Your task to perform on an android device: turn off data saver in the chrome app Image 0: 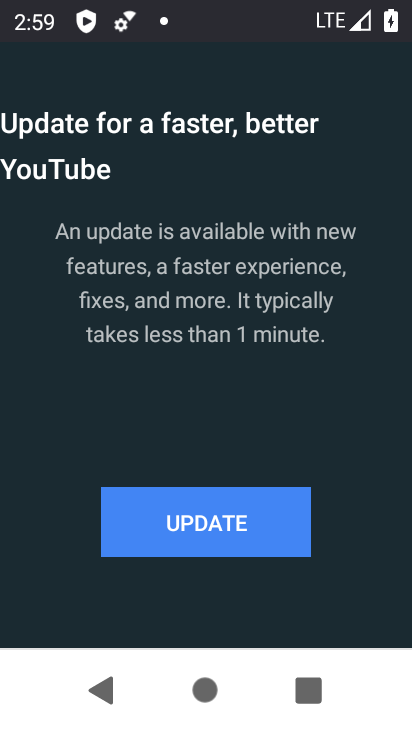
Step 0: press back button
Your task to perform on an android device: turn off data saver in the chrome app Image 1: 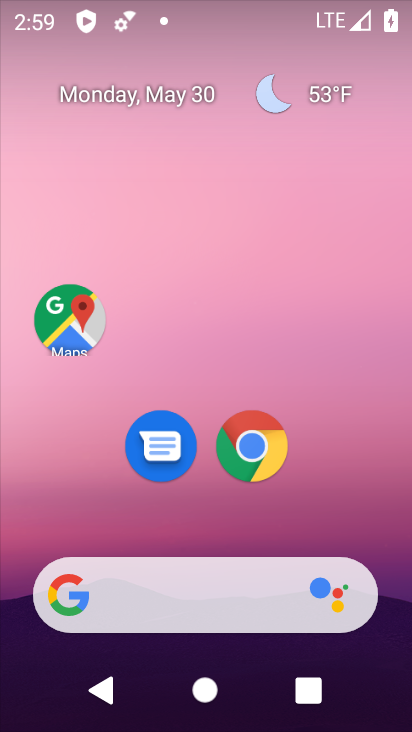
Step 1: click (249, 439)
Your task to perform on an android device: turn off data saver in the chrome app Image 2: 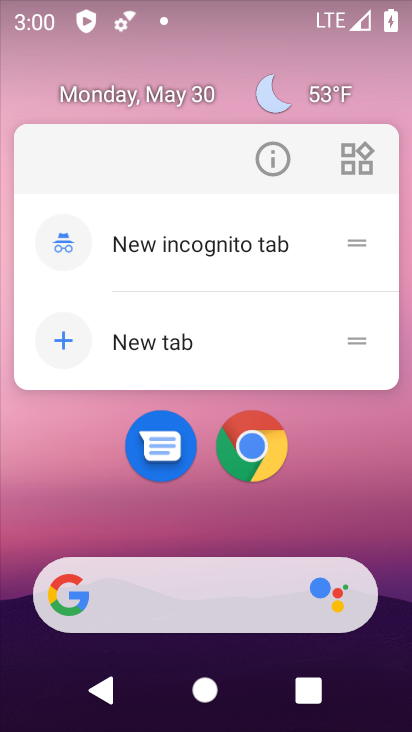
Step 2: click (249, 440)
Your task to perform on an android device: turn off data saver in the chrome app Image 3: 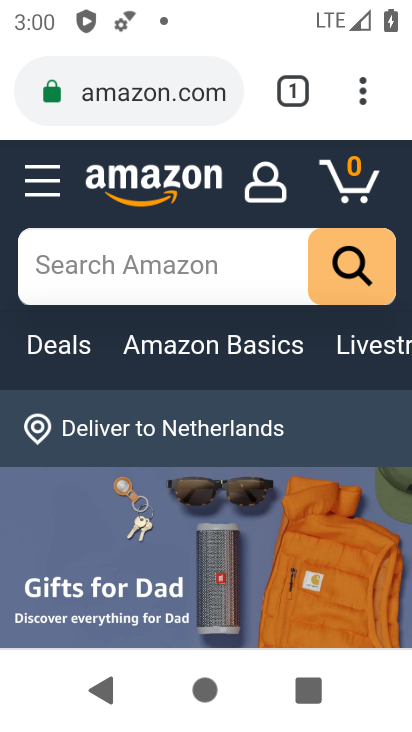
Step 3: click (362, 83)
Your task to perform on an android device: turn off data saver in the chrome app Image 4: 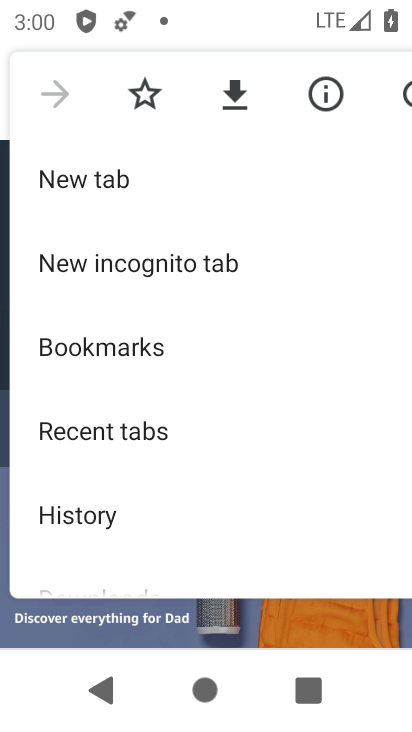
Step 4: drag from (249, 558) to (316, 350)
Your task to perform on an android device: turn off data saver in the chrome app Image 5: 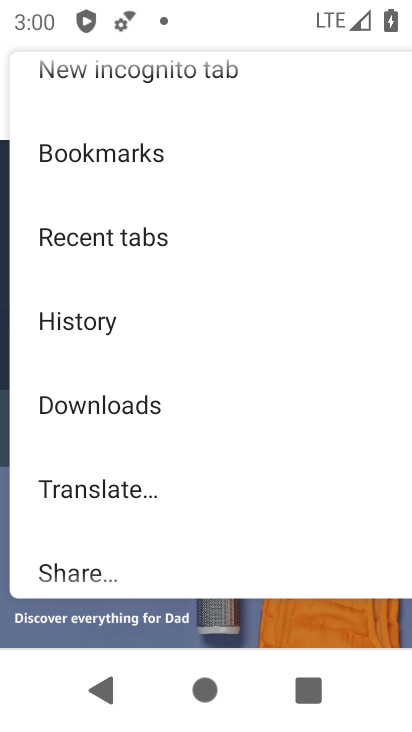
Step 5: drag from (178, 558) to (239, 413)
Your task to perform on an android device: turn off data saver in the chrome app Image 6: 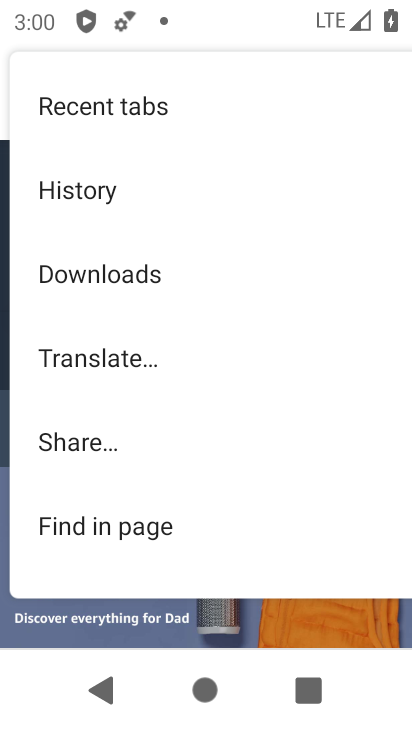
Step 6: drag from (193, 564) to (253, 454)
Your task to perform on an android device: turn off data saver in the chrome app Image 7: 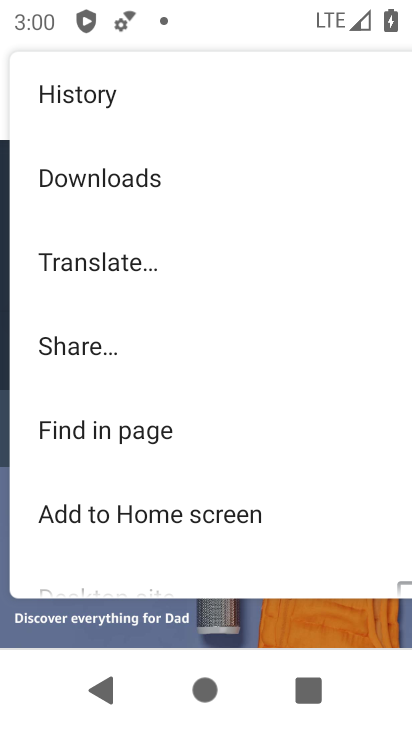
Step 7: drag from (204, 562) to (265, 436)
Your task to perform on an android device: turn off data saver in the chrome app Image 8: 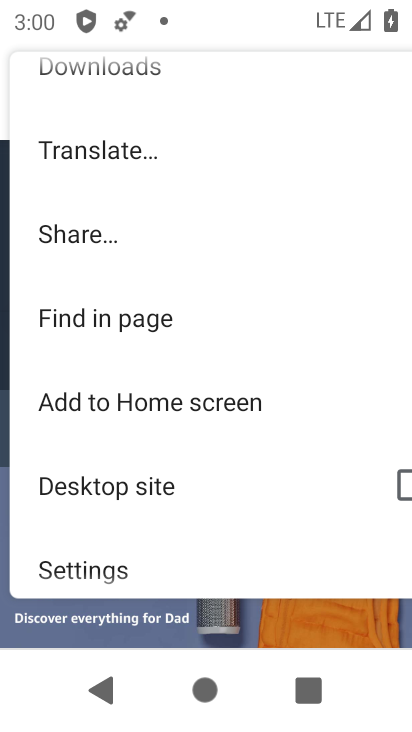
Step 8: click (94, 574)
Your task to perform on an android device: turn off data saver in the chrome app Image 9: 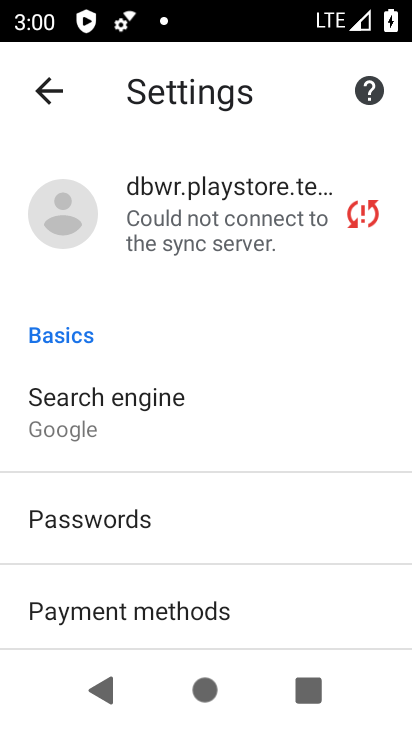
Step 9: drag from (104, 577) to (220, 333)
Your task to perform on an android device: turn off data saver in the chrome app Image 10: 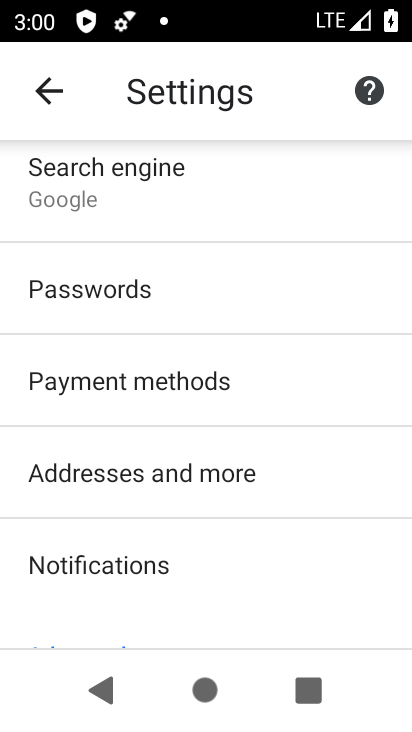
Step 10: drag from (113, 599) to (207, 478)
Your task to perform on an android device: turn off data saver in the chrome app Image 11: 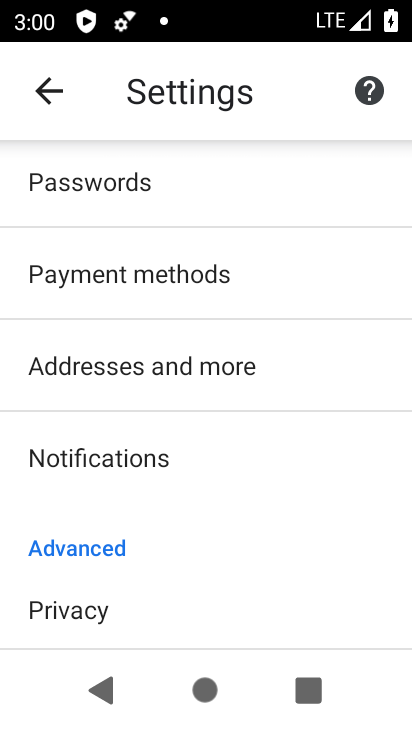
Step 11: drag from (140, 610) to (206, 489)
Your task to perform on an android device: turn off data saver in the chrome app Image 12: 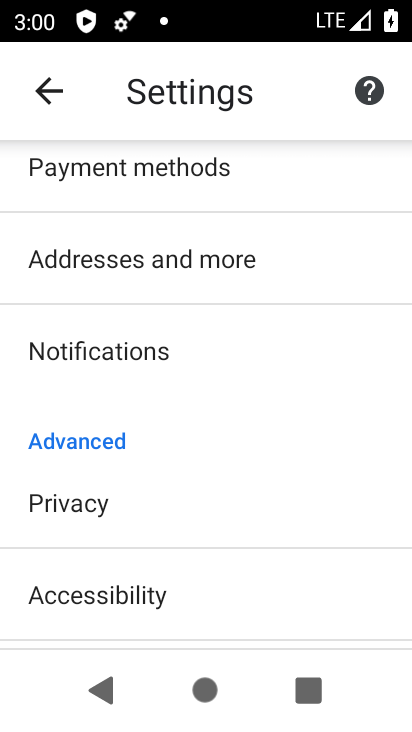
Step 12: drag from (161, 629) to (238, 485)
Your task to perform on an android device: turn off data saver in the chrome app Image 13: 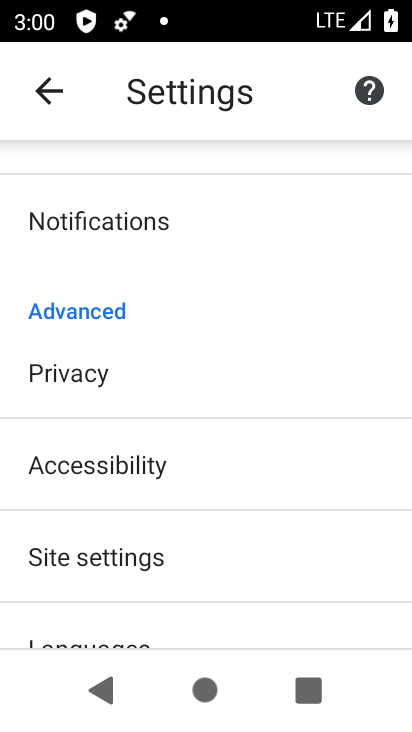
Step 13: drag from (178, 573) to (246, 453)
Your task to perform on an android device: turn off data saver in the chrome app Image 14: 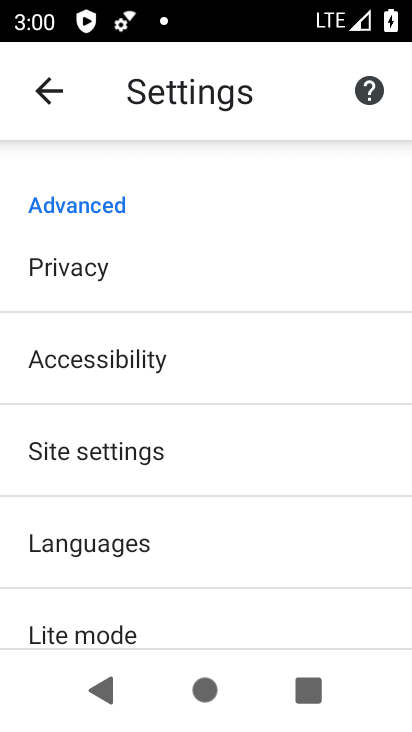
Step 14: drag from (180, 588) to (235, 497)
Your task to perform on an android device: turn off data saver in the chrome app Image 15: 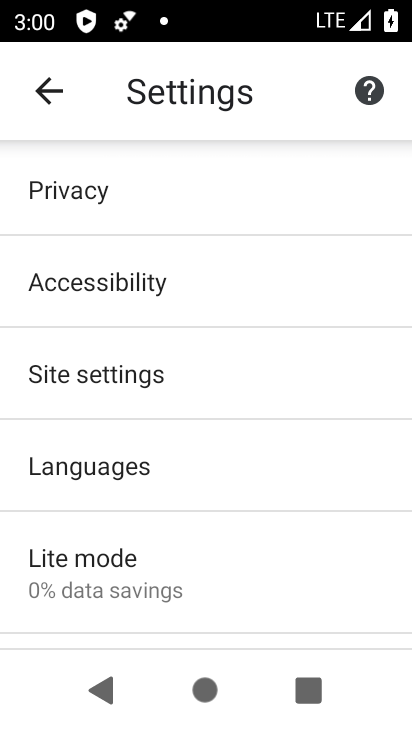
Step 15: click (167, 575)
Your task to perform on an android device: turn off data saver in the chrome app Image 16: 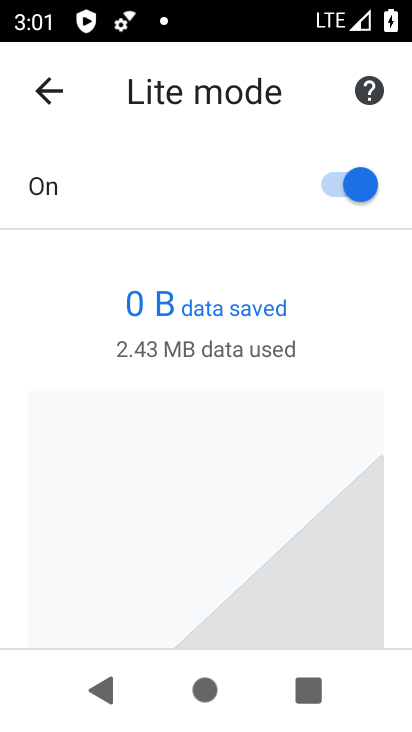
Step 16: click (339, 176)
Your task to perform on an android device: turn off data saver in the chrome app Image 17: 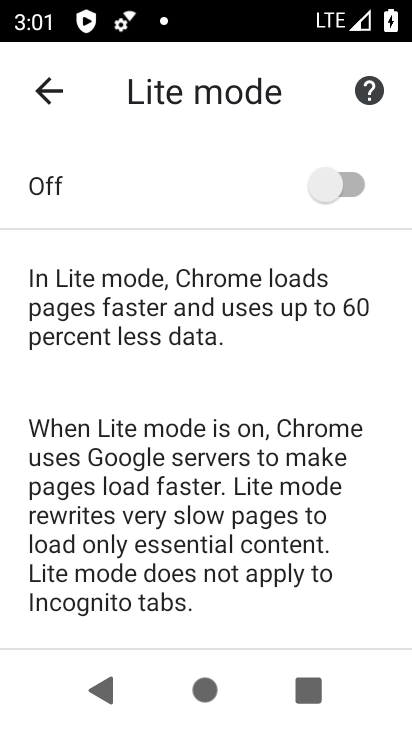
Step 17: task complete